Your task to perform on an android device: change text size in settings app Image 0: 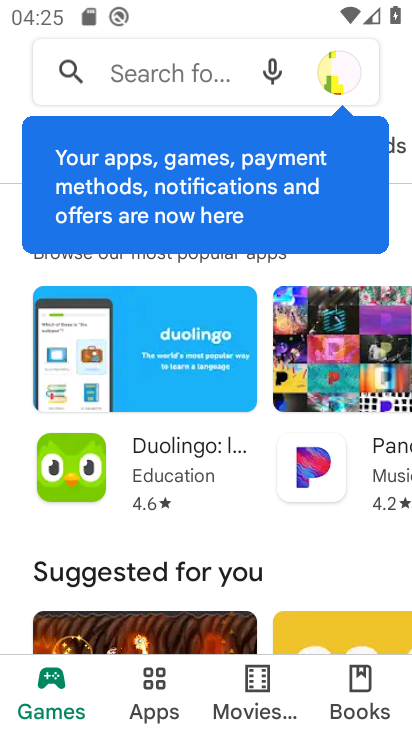
Step 0: press home button
Your task to perform on an android device: change text size in settings app Image 1: 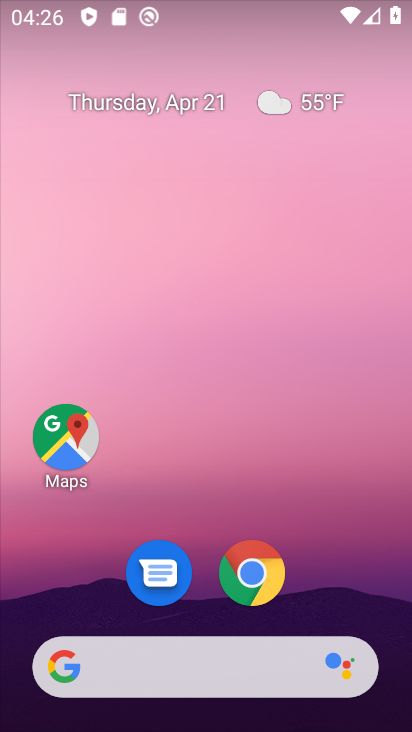
Step 1: drag from (320, 617) to (260, 1)
Your task to perform on an android device: change text size in settings app Image 2: 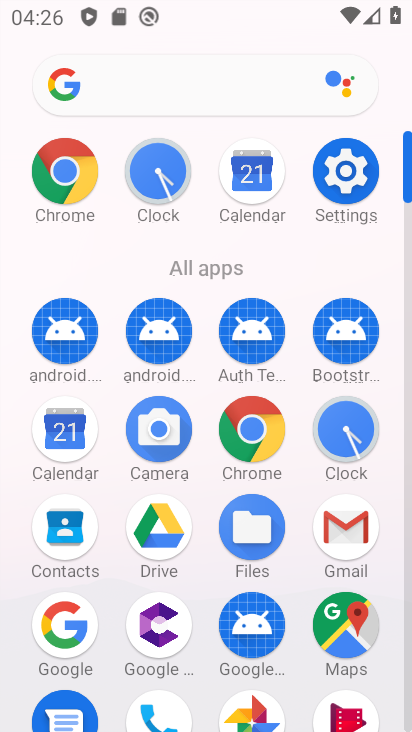
Step 2: click (338, 180)
Your task to perform on an android device: change text size in settings app Image 3: 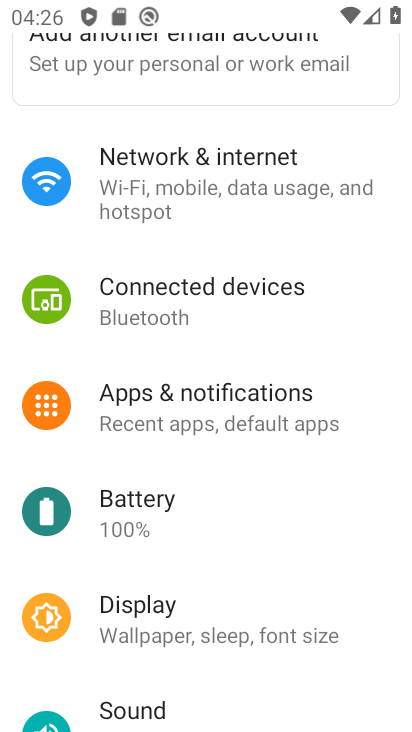
Step 3: drag from (237, 672) to (234, 303)
Your task to perform on an android device: change text size in settings app Image 4: 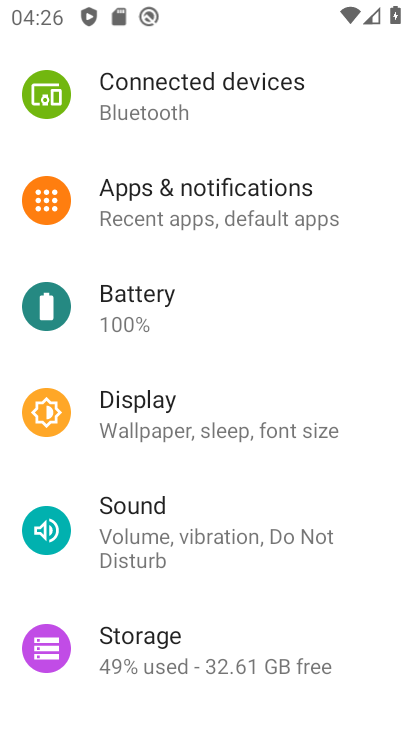
Step 4: drag from (238, 604) to (231, 293)
Your task to perform on an android device: change text size in settings app Image 5: 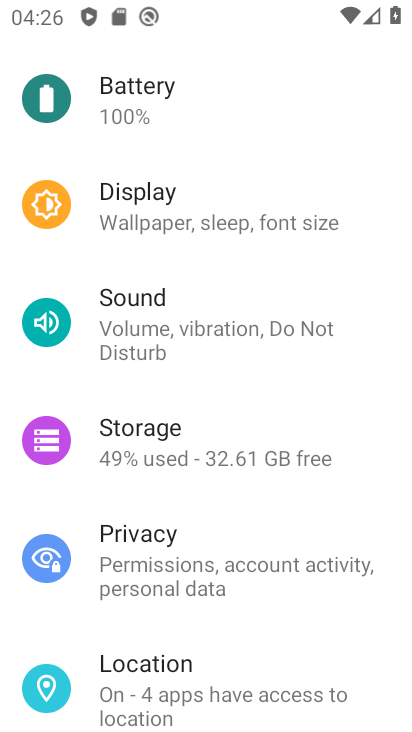
Step 5: drag from (243, 648) to (235, 321)
Your task to perform on an android device: change text size in settings app Image 6: 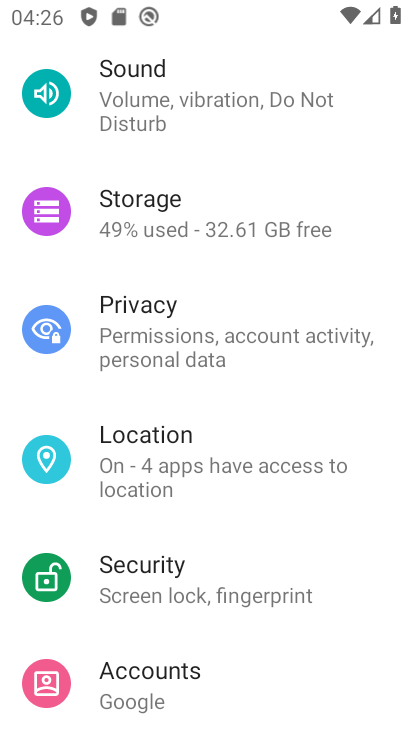
Step 6: drag from (239, 672) to (227, 268)
Your task to perform on an android device: change text size in settings app Image 7: 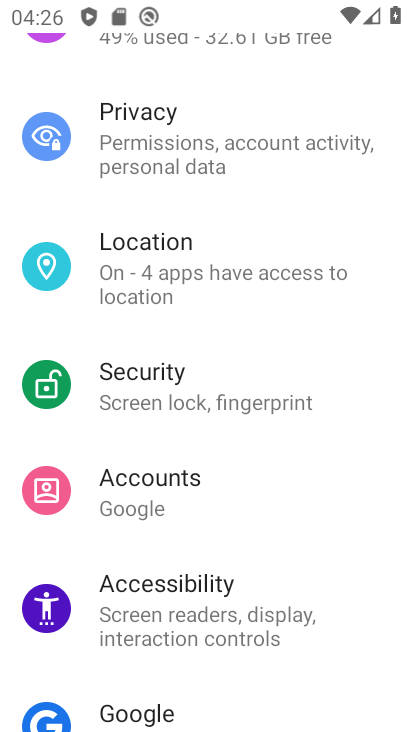
Step 7: click (230, 594)
Your task to perform on an android device: change text size in settings app Image 8: 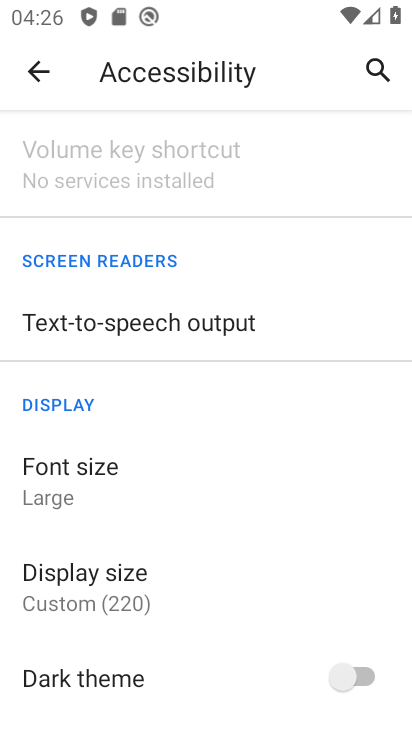
Step 8: click (136, 477)
Your task to perform on an android device: change text size in settings app Image 9: 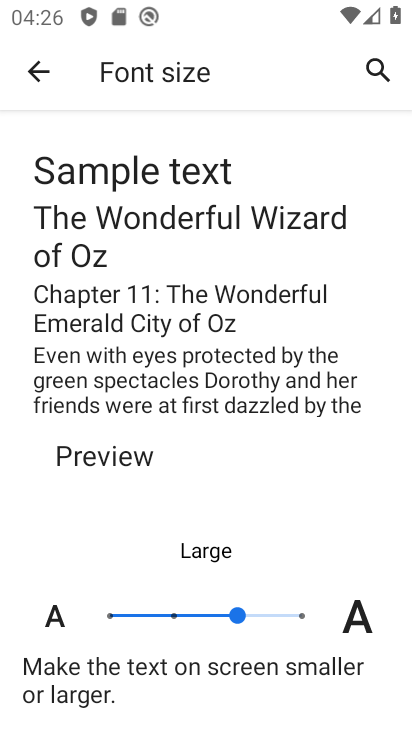
Step 9: click (172, 616)
Your task to perform on an android device: change text size in settings app Image 10: 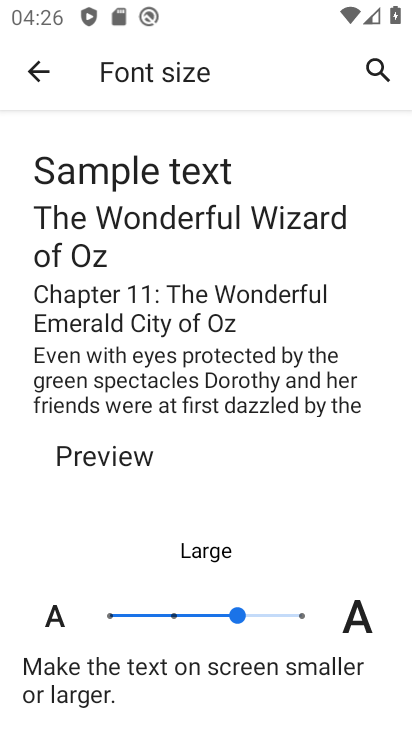
Step 10: click (189, 544)
Your task to perform on an android device: change text size in settings app Image 11: 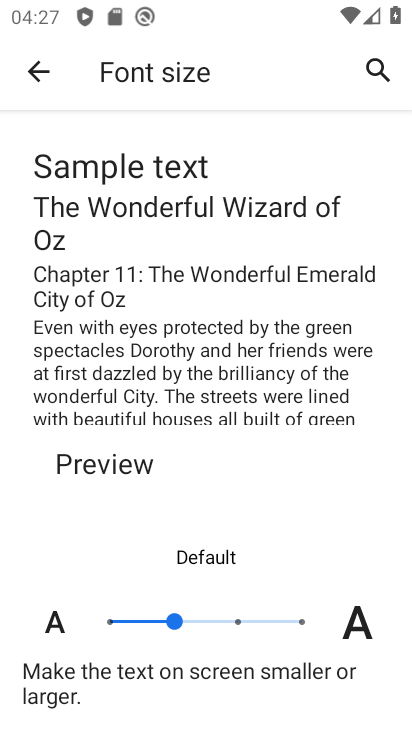
Step 11: task complete